Your task to perform on an android device: Open eBay Image 0: 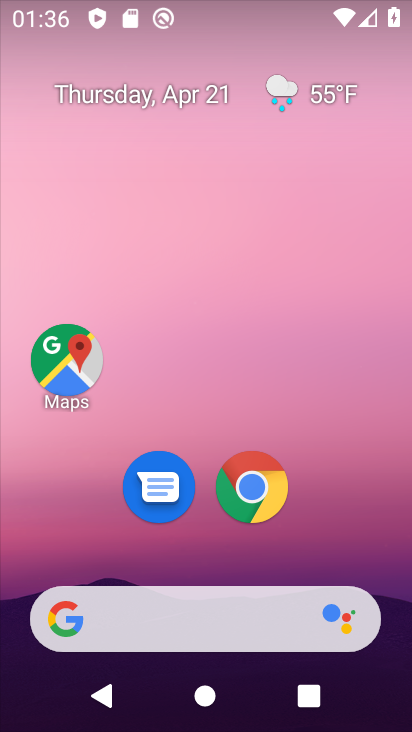
Step 0: click (241, 485)
Your task to perform on an android device: Open eBay Image 1: 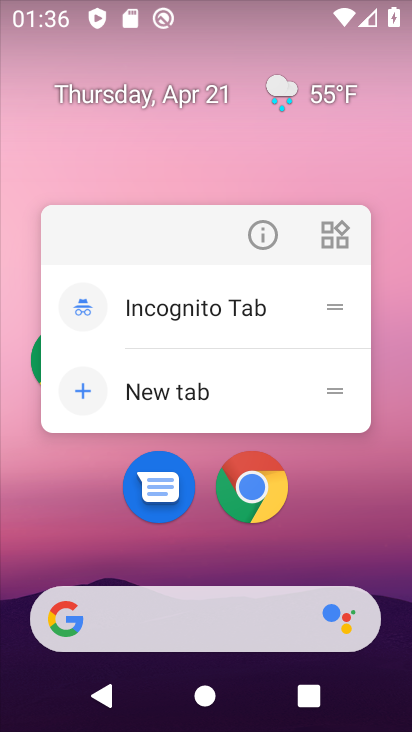
Step 1: click (235, 490)
Your task to perform on an android device: Open eBay Image 2: 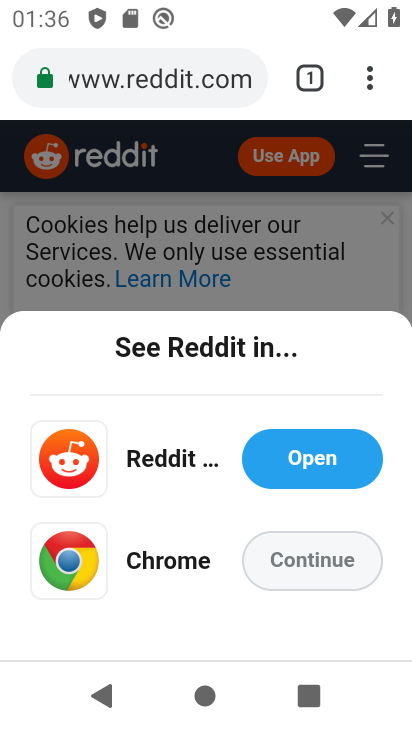
Step 2: click (189, 83)
Your task to perform on an android device: Open eBay Image 3: 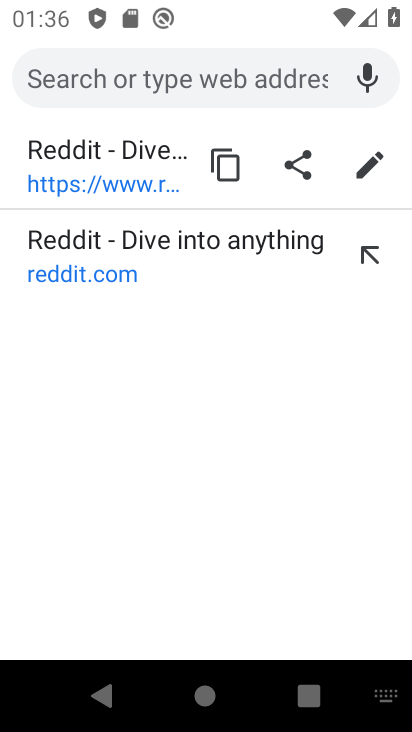
Step 3: type "ebay"
Your task to perform on an android device: Open eBay Image 4: 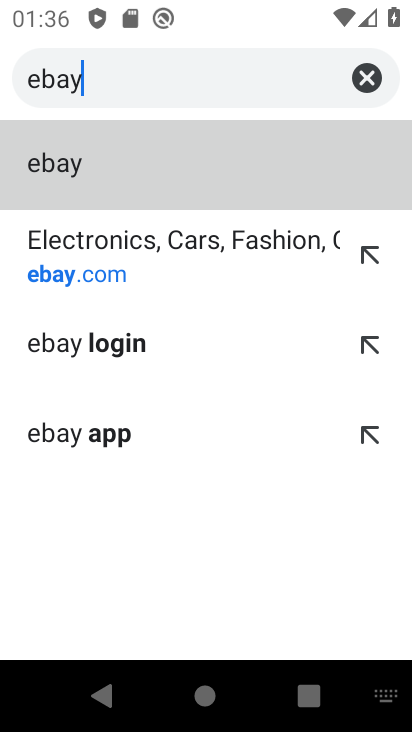
Step 4: click (31, 173)
Your task to perform on an android device: Open eBay Image 5: 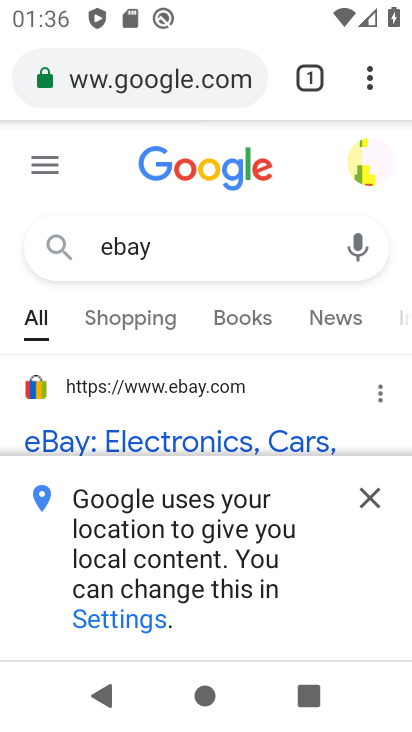
Step 5: click (154, 438)
Your task to perform on an android device: Open eBay Image 6: 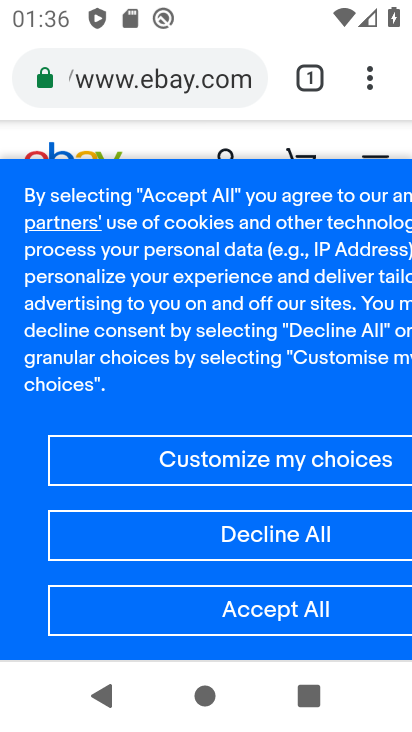
Step 6: task complete